Your task to perform on an android device: turn off javascript in the chrome app Image 0: 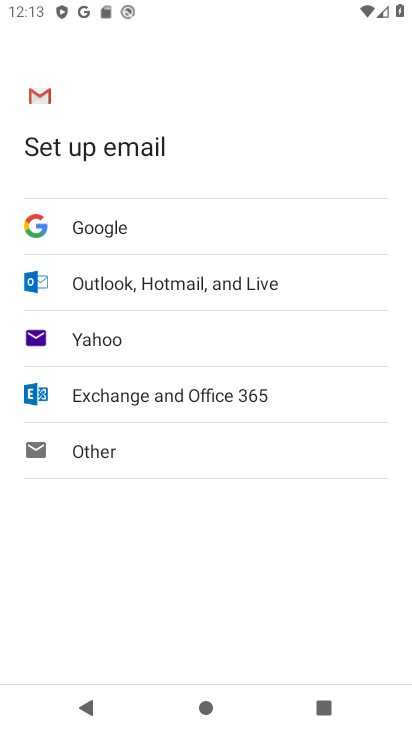
Step 0: press home button
Your task to perform on an android device: turn off javascript in the chrome app Image 1: 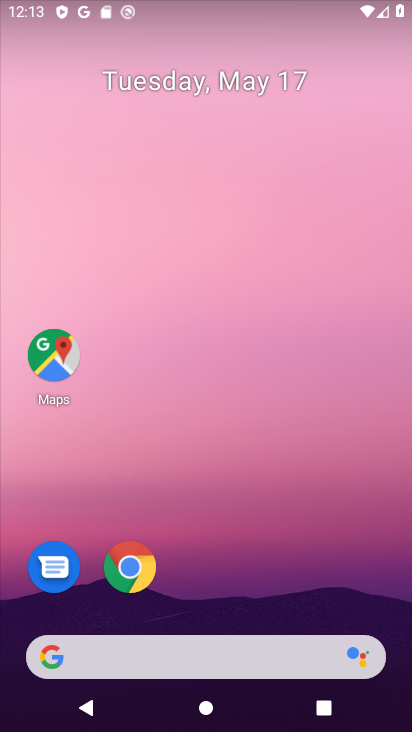
Step 1: drag from (384, 595) to (376, 10)
Your task to perform on an android device: turn off javascript in the chrome app Image 2: 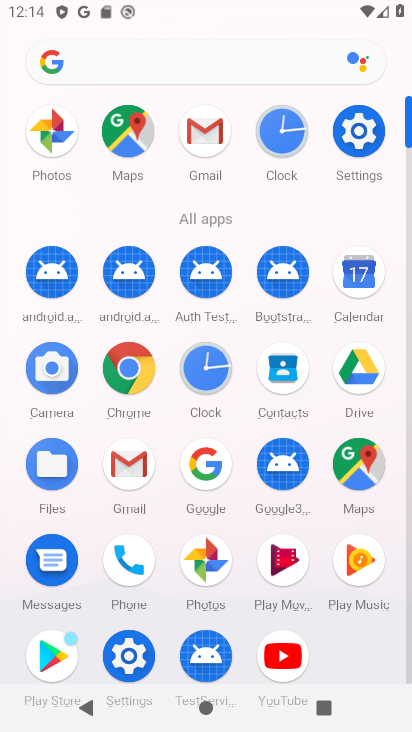
Step 2: click (144, 391)
Your task to perform on an android device: turn off javascript in the chrome app Image 3: 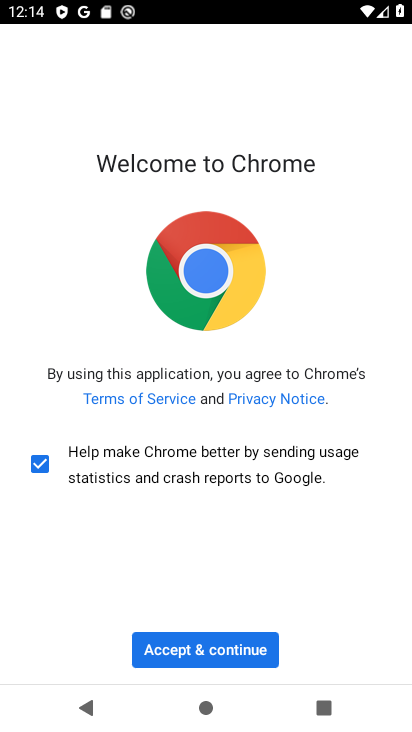
Step 3: click (205, 639)
Your task to perform on an android device: turn off javascript in the chrome app Image 4: 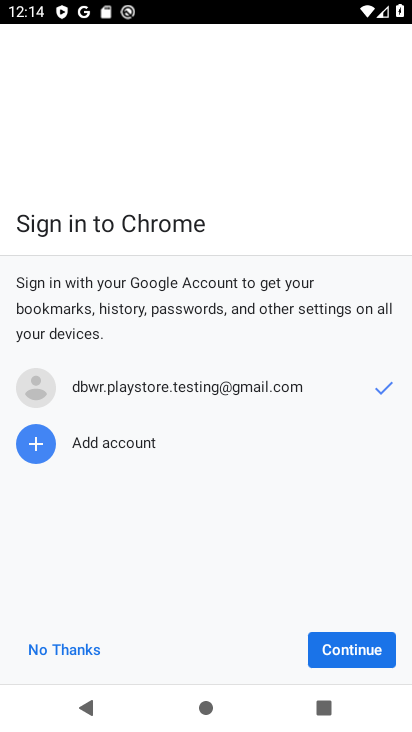
Step 4: click (336, 653)
Your task to perform on an android device: turn off javascript in the chrome app Image 5: 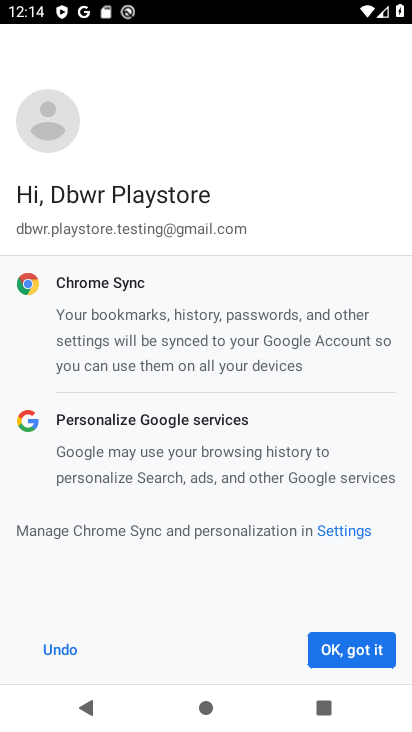
Step 5: click (336, 653)
Your task to perform on an android device: turn off javascript in the chrome app Image 6: 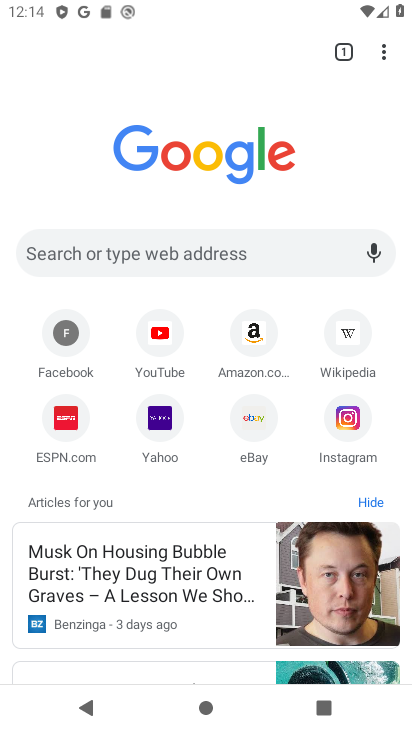
Step 6: click (385, 55)
Your task to perform on an android device: turn off javascript in the chrome app Image 7: 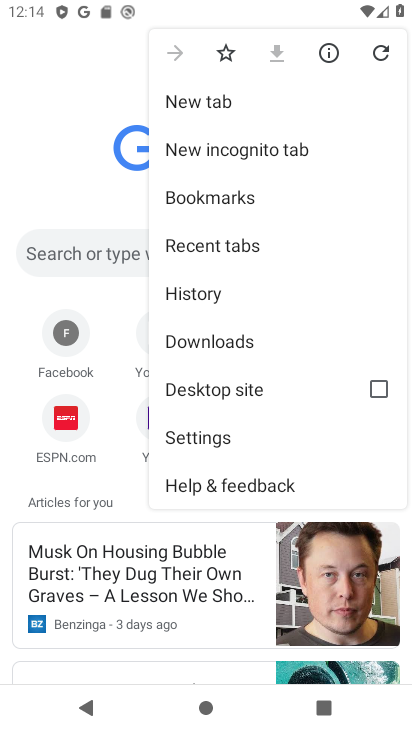
Step 7: click (230, 431)
Your task to perform on an android device: turn off javascript in the chrome app Image 8: 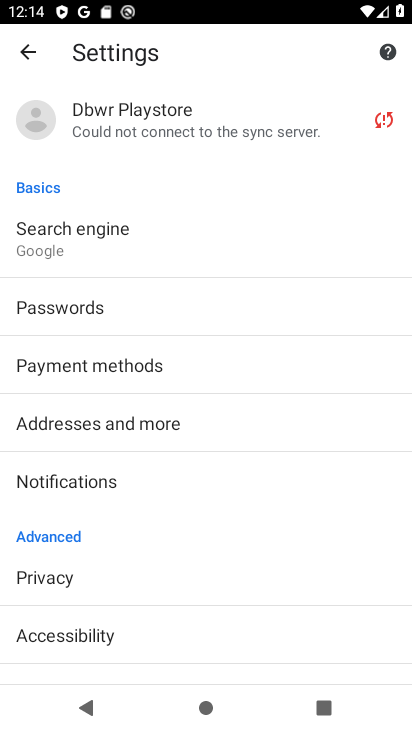
Step 8: drag from (268, 589) to (297, 451)
Your task to perform on an android device: turn off javascript in the chrome app Image 9: 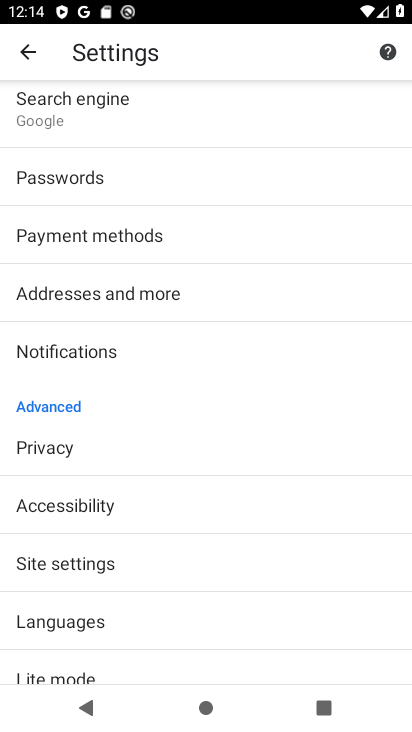
Step 9: drag from (298, 595) to (303, 401)
Your task to perform on an android device: turn off javascript in the chrome app Image 10: 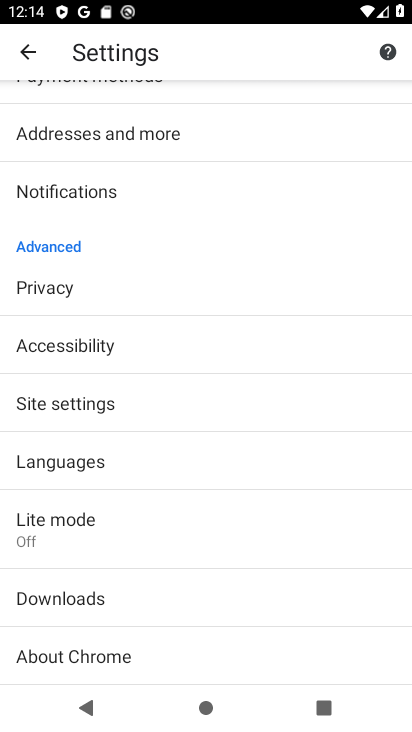
Step 10: drag from (311, 578) to (326, 389)
Your task to perform on an android device: turn off javascript in the chrome app Image 11: 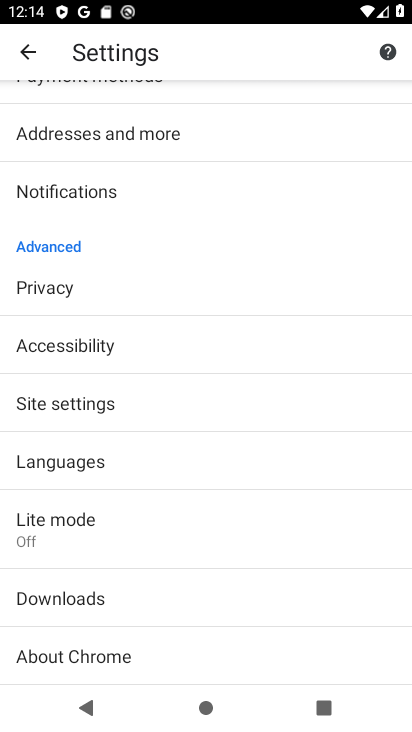
Step 11: click (256, 396)
Your task to perform on an android device: turn off javascript in the chrome app Image 12: 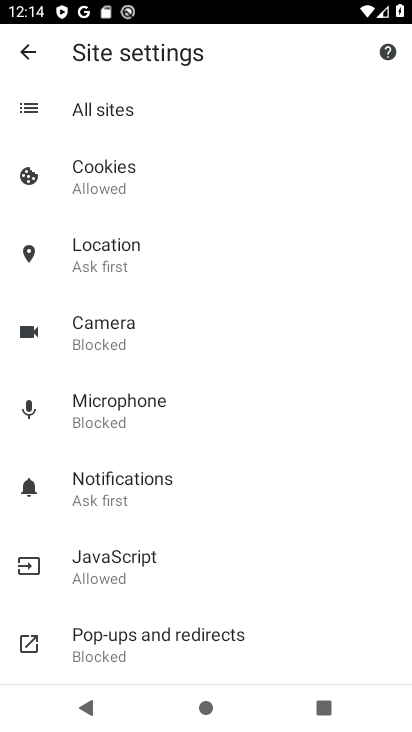
Step 12: drag from (306, 364) to (334, 534)
Your task to perform on an android device: turn off javascript in the chrome app Image 13: 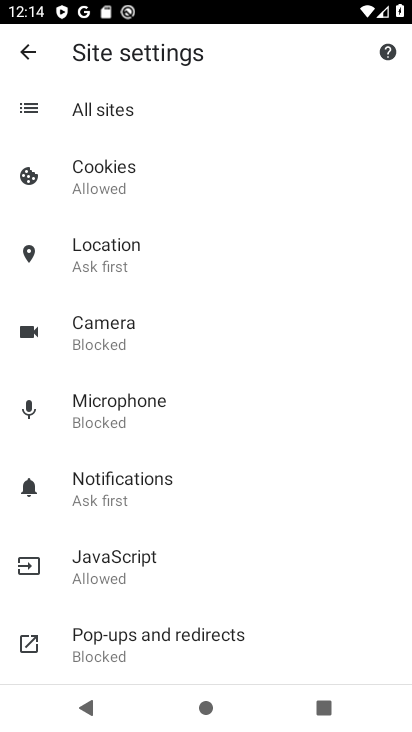
Step 13: drag from (280, 328) to (286, 551)
Your task to perform on an android device: turn off javascript in the chrome app Image 14: 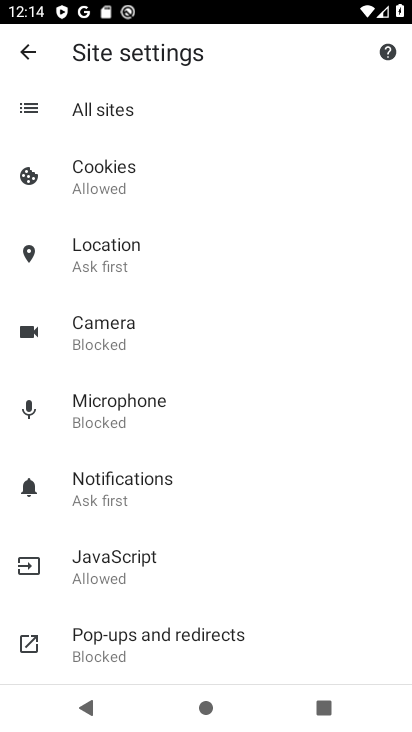
Step 14: click (96, 572)
Your task to perform on an android device: turn off javascript in the chrome app Image 15: 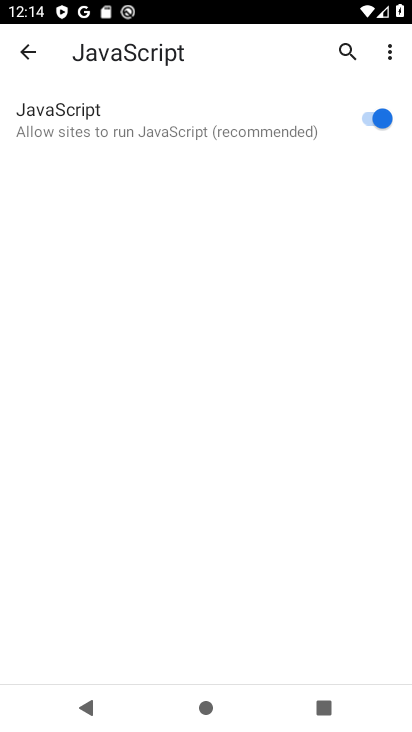
Step 15: click (367, 118)
Your task to perform on an android device: turn off javascript in the chrome app Image 16: 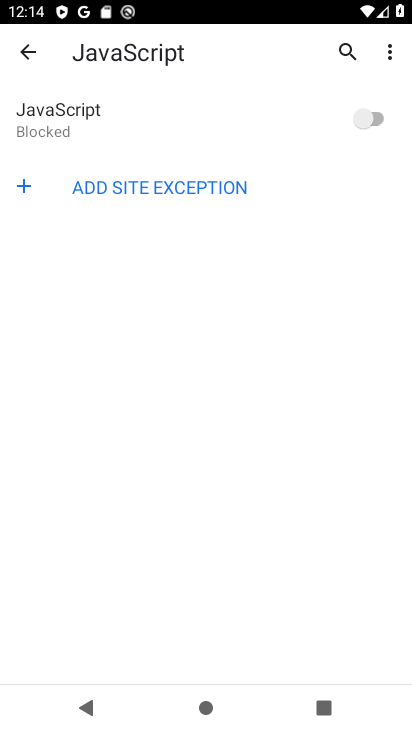
Step 16: task complete